Your task to perform on an android device: turn on the 12-hour format for clock Image 0: 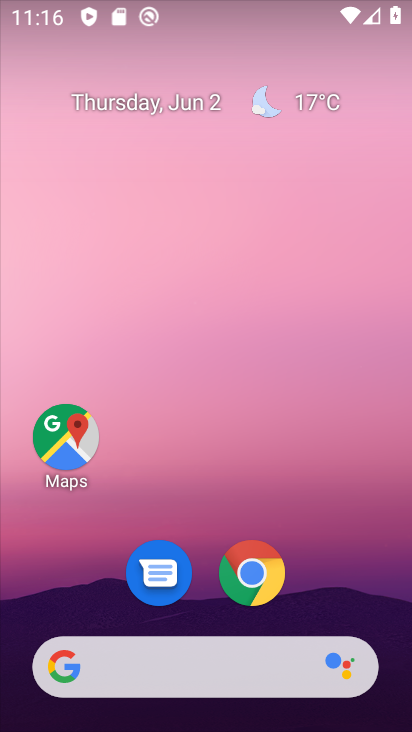
Step 0: task complete